Your task to perform on an android device: Go to Yahoo.com Image 0: 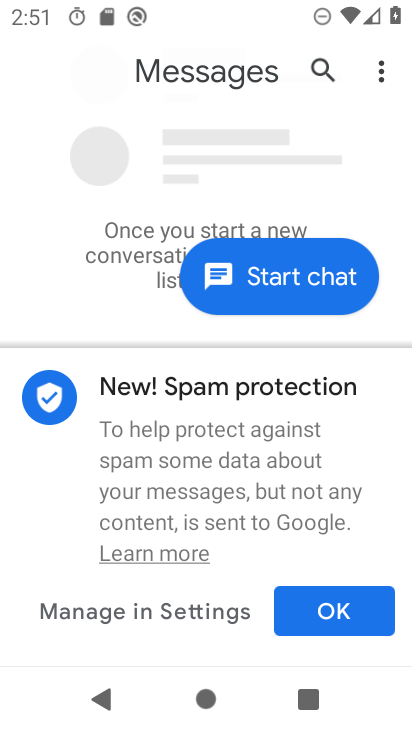
Step 0: press home button
Your task to perform on an android device: Go to Yahoo.com Image 1: 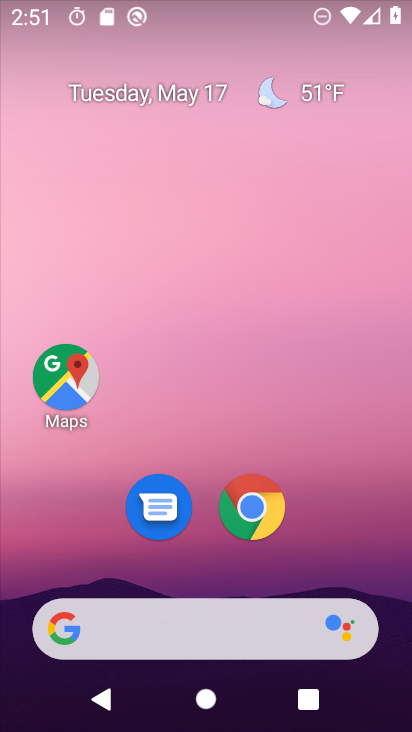
Step 1: drag from (201, 568) to (252, 339)
Your task to perform on an android device: Go to Yahoo.com Image 2: 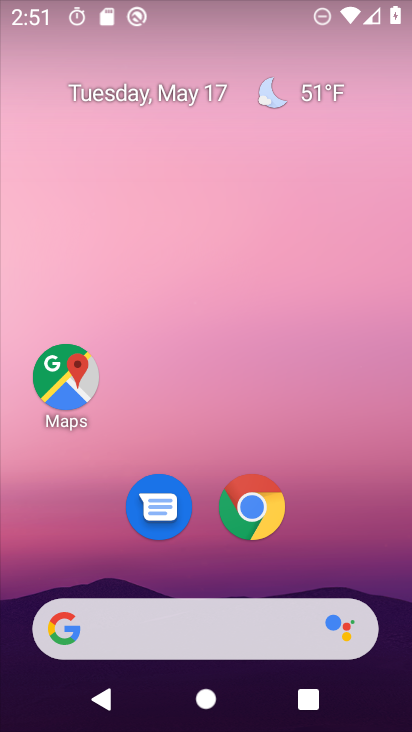
Step 2: click (254, 509)
Your task to perform on an android device: Go to Yahoo.com Image 3: 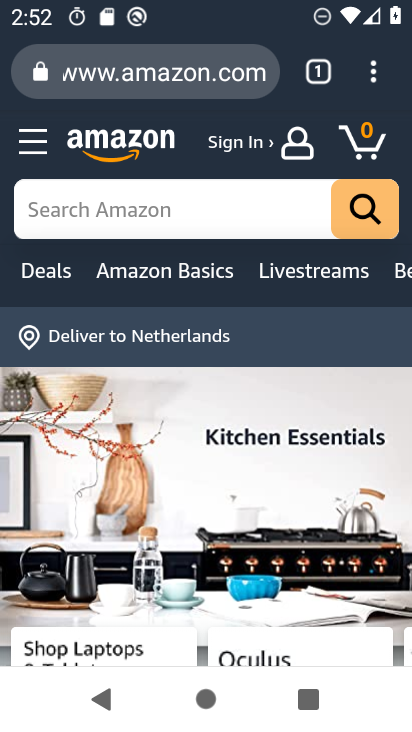
Step 3: press back button
Your task to perform on an android device: Go to Yahoo.com Image 4: 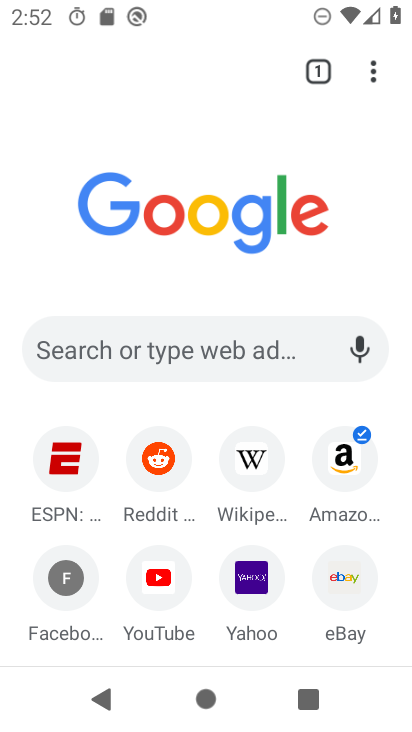
Step 4: click (256, 580)
Your task to perform on an android device: Go to Yahoo.com Image 5: 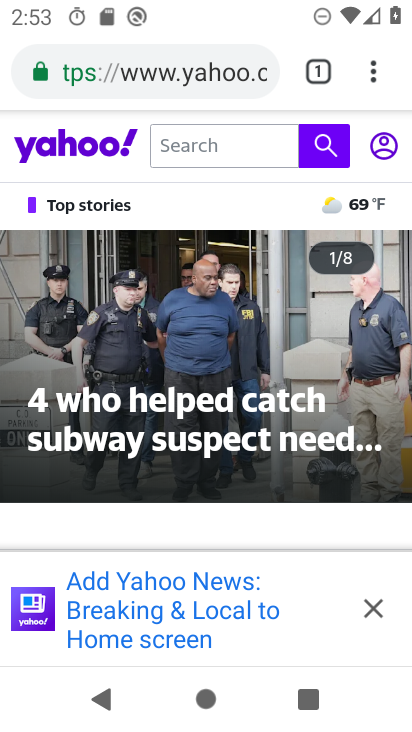
Step 5: task complete